Your task to perform on an android device: delete a single message in the gmail app Image 0: 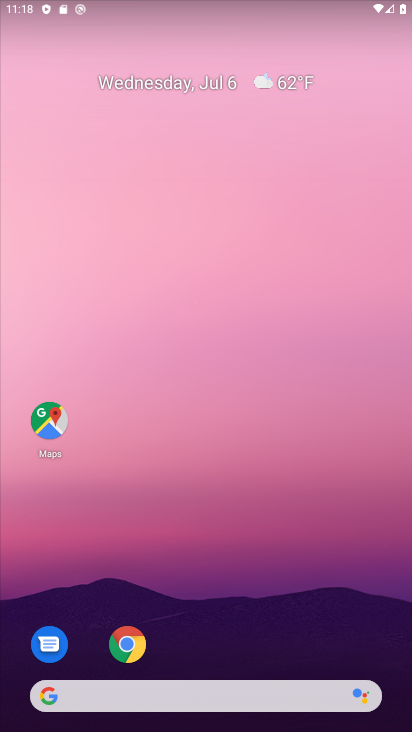
Step 0: drag from (203, 638) to (267, 160)
Your task to perform on an android device: delete a single message in the gmail app Image 1: 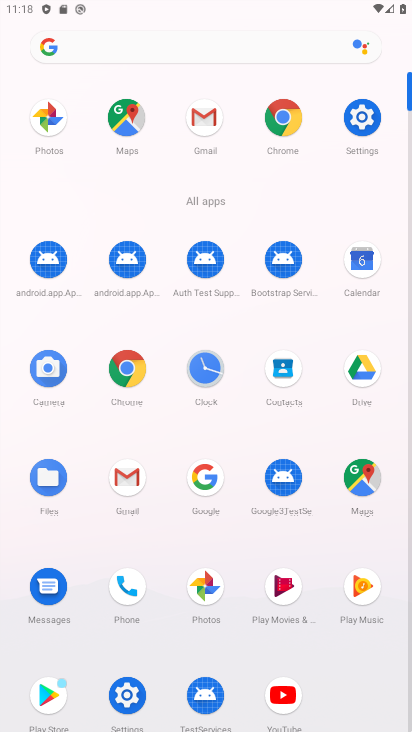
Step 1: click (127, 483)
Your task to perform on an android device: delete a single message in the gmail app Image 2: 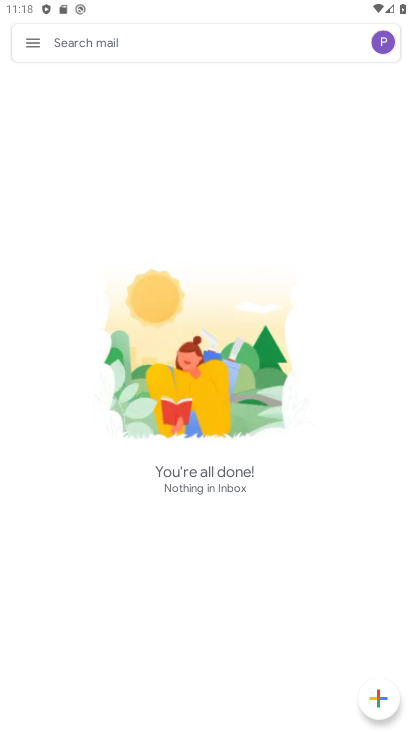
Step 2: click (31, 46)
Your task to perform on an android device: delete a single message in the gmail app Image 3: 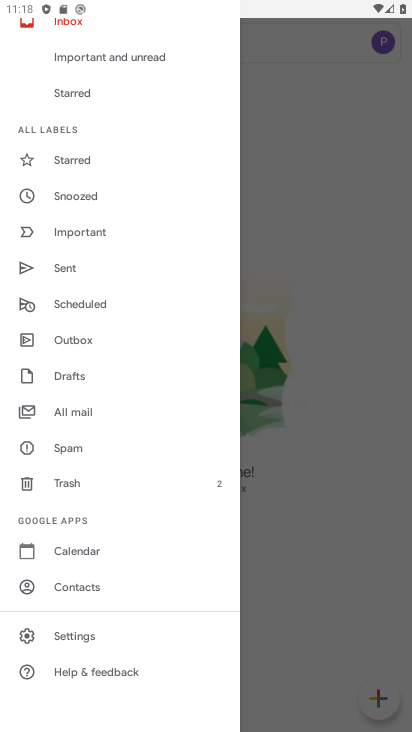
Step 3: click (97, 424)
Your task to perform on an android device: delete a single message in the gmail app Image 4: 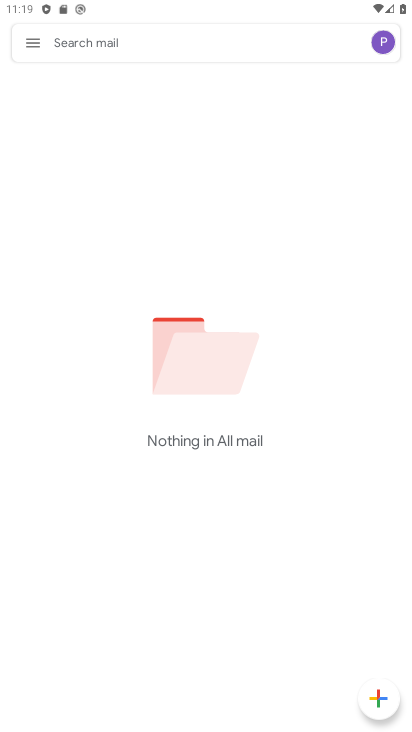
Step 4: task complete